Your task to perform on an android device: clear all cookies in the chrome app Image 0: 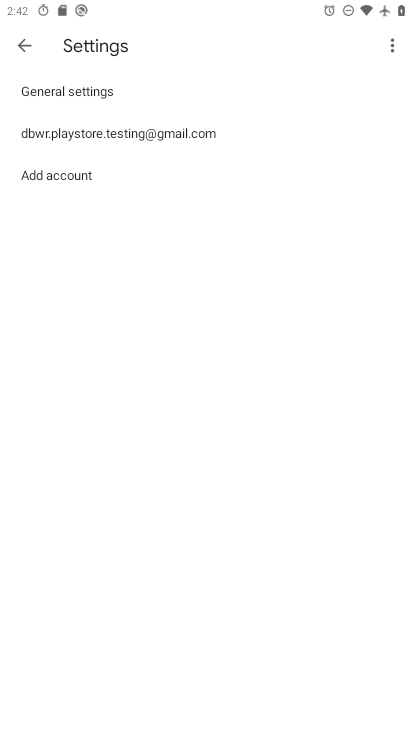
Step 0: press home button
Your task to perform on an android device: clear all cookies in the chrome app Image 1: 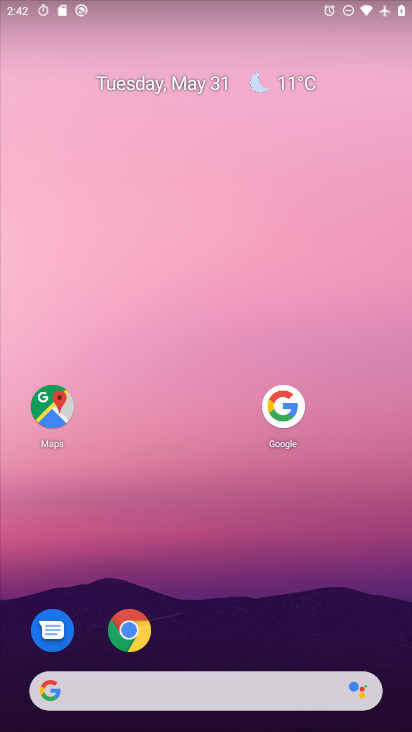
Step 1: click (139, 630)
Your task to perform on an android device: clear all cookies in the chrome app Image 2: 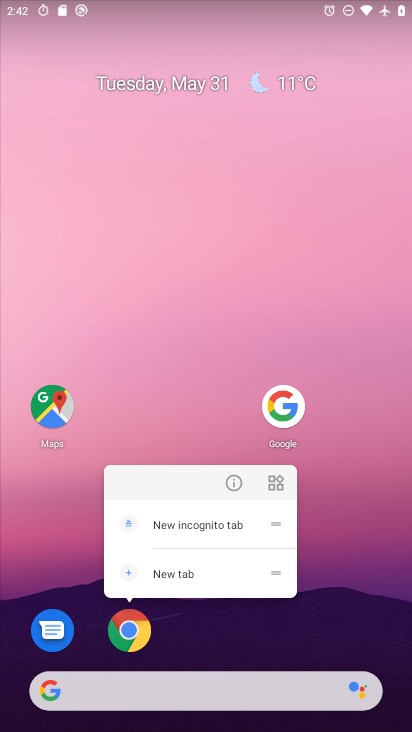
Step 2: click (126, 631)
Your task to perform on an android device: clear all cookies in the chrome app Image 3: 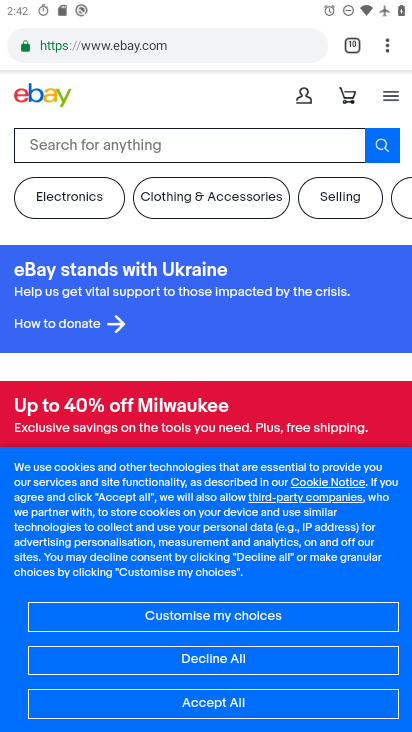
Step 3: drag from (387, 44) to (254, 598)
Your task to perform on an android device: clear all cookies in the chrome app Image 4: 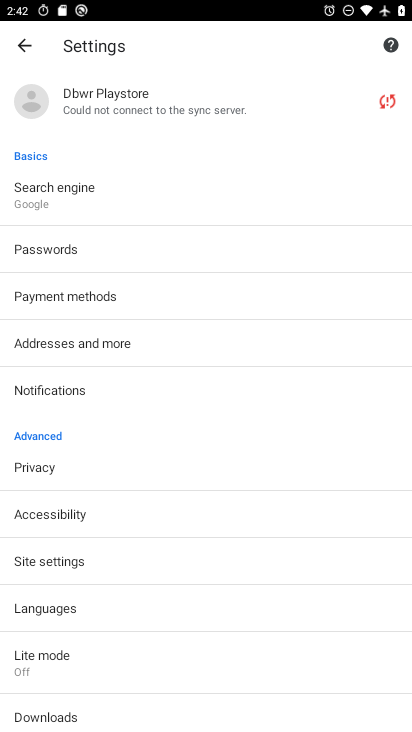
Step 4: click (41, 463)
Your task to perform on an android device: clear all cookies in the chrome app Image 5: 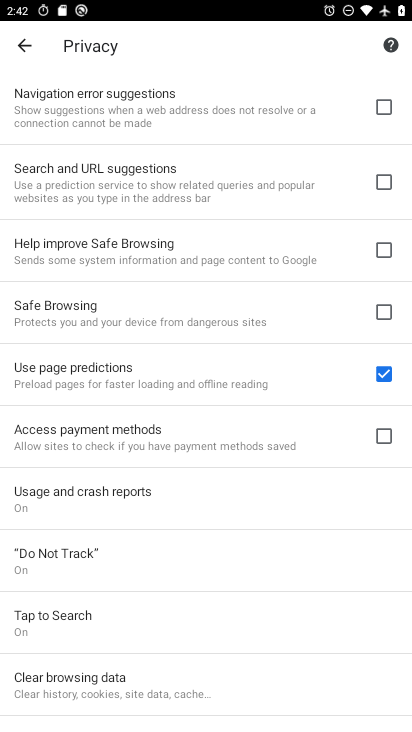
Step 5: click (92, 693)
Your task to perform on an android device: clear all cookies in the chrome app Image 6: 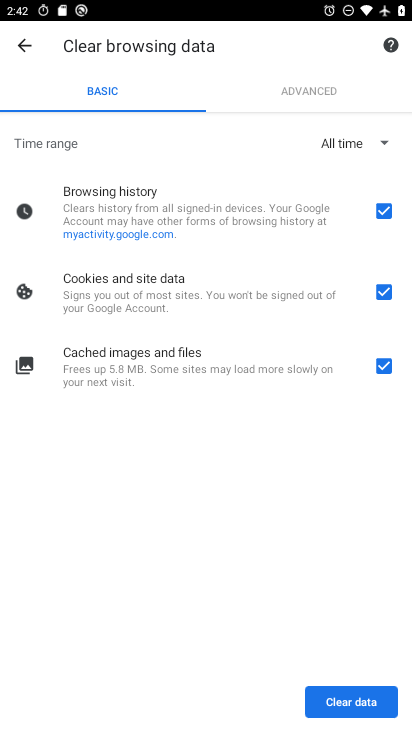
Step 6: click (382, 210)
Your task to perform on an android device: clear all cookies in the chrome app Image 7: 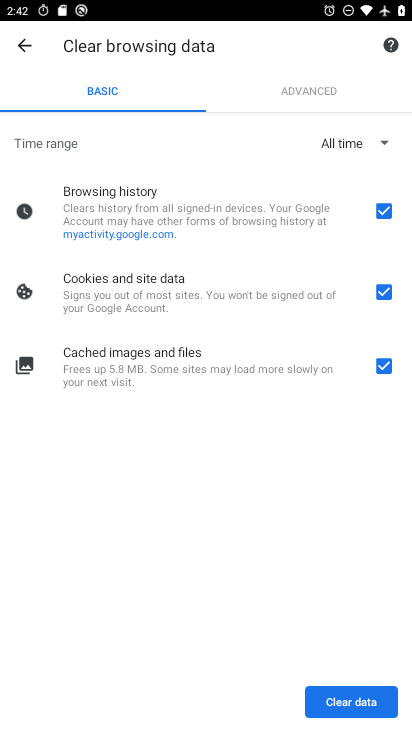
Step 7: click (385, 356)
Your task to perform on an android device: clear all cookies in the chrome app Image 8: 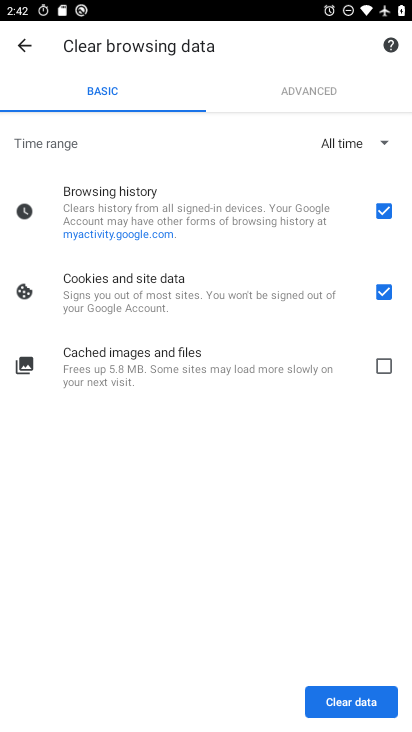
Step 8: click (381, 211)
Your task to perform on an android device: clear all cookies in the chrome app Image 9: 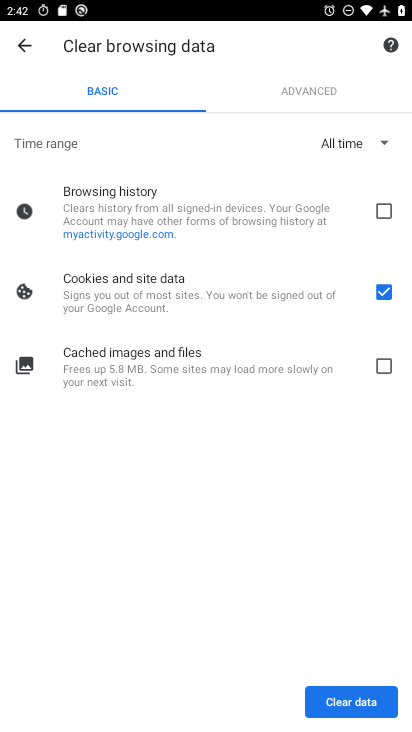
Step 9: click (339, 701)
Your task to perform on an android device: clear all cookies in the chrome app Image 10: 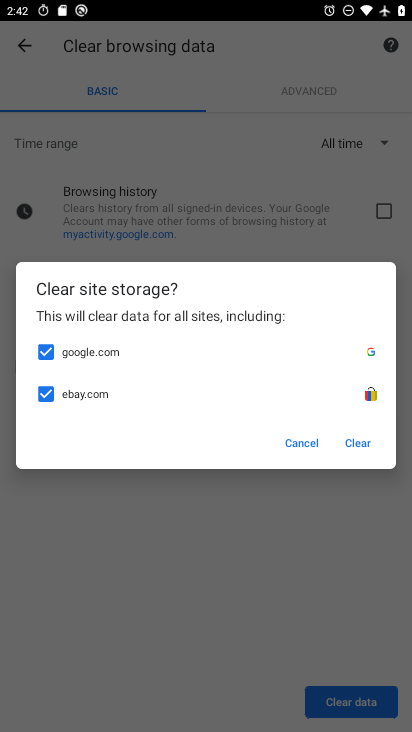
Step 10: click (368, 442)
Your task to perform on an android device: clear all cookies in the chrome app Image 11: 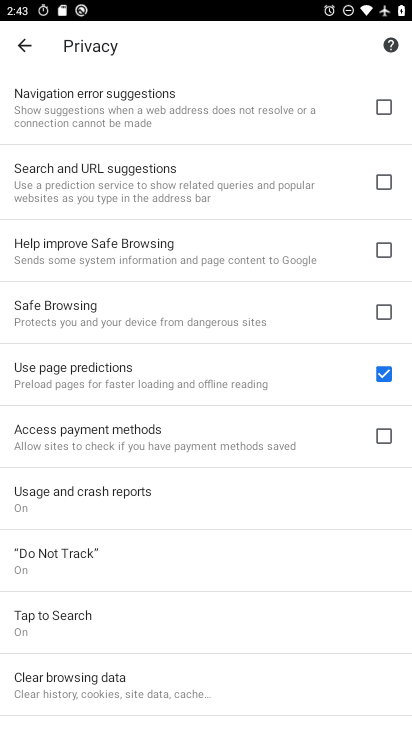
Step 11: task complete